Your task to perform on an android device: turn pop-ups on in chrome Image 0: 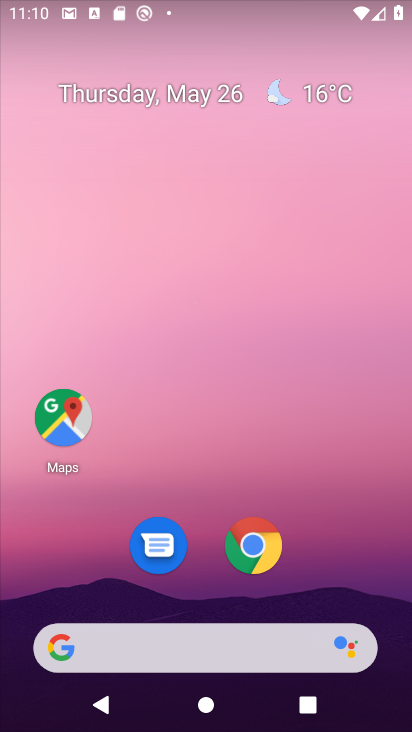
Step 0: press home button
Your task to perform on an android device: turn pop-ups on in chrome Image 1: 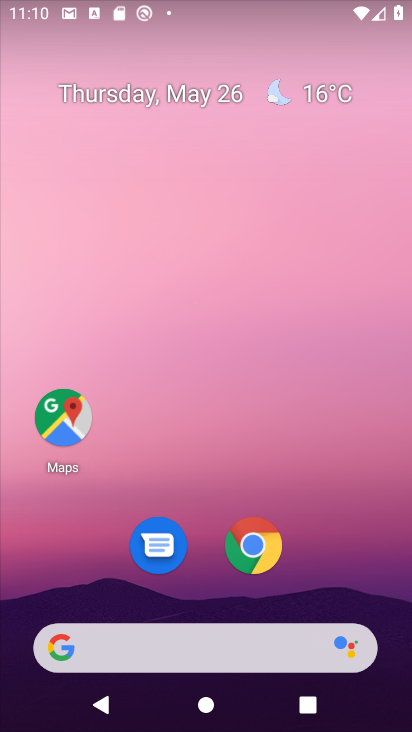
Step 1: click (257, 534)
Your task to perform on an android device: turn pop-ups on in chrome Image 2: 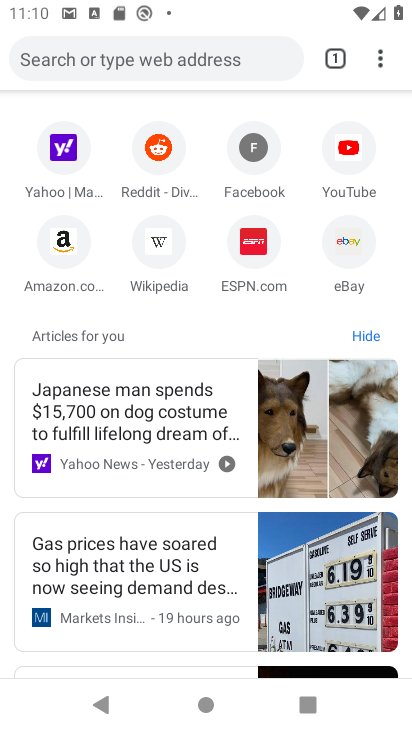
Step 2: drag from (378, 53) to (179, 496)
Your task to perform on an android device: turn pop-ups on in chrome Image 3: 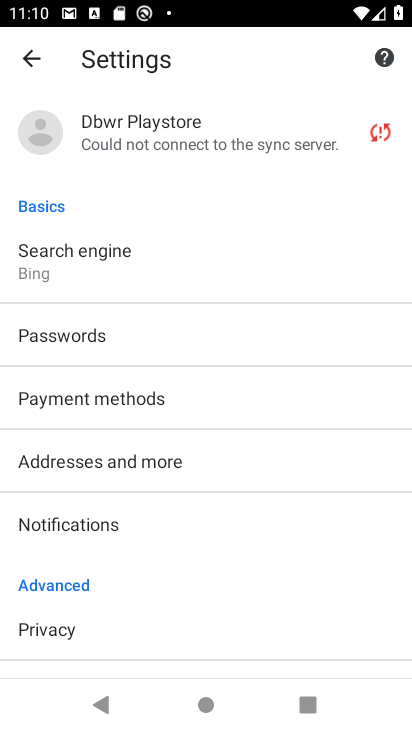
Step 3: drag from (226, 619) to (166, 236)
Your task to perform on an android device: turn pop-ups on in chrome Image 4: 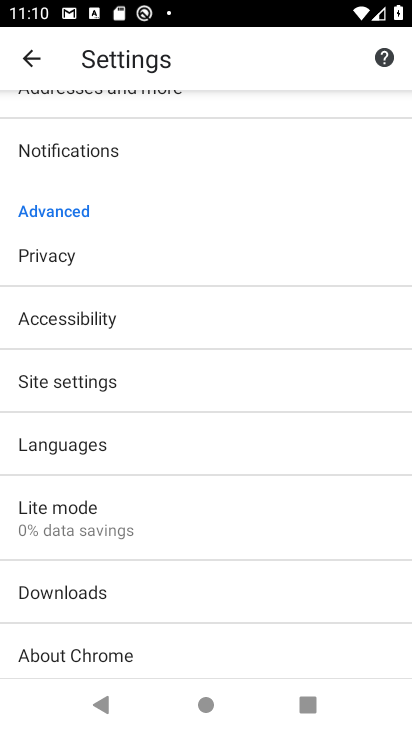
Step 4: click (63, 391)
Your task to perform on an android device: turn pop-ups on in chrome Image 5: 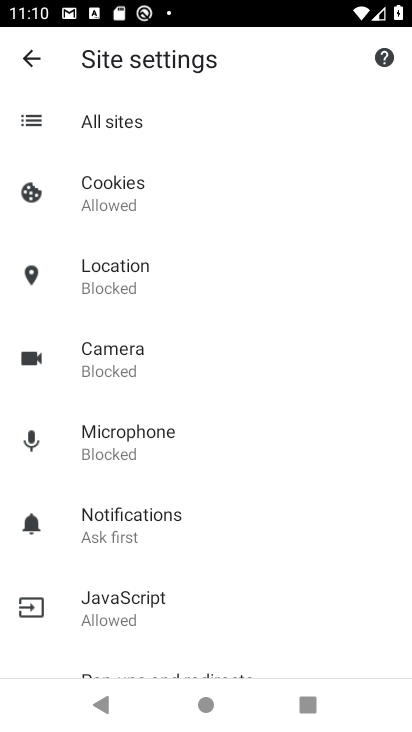
Step 5: drag from (291, 555) to (256, 353)
Your task to perform on an android device: turn pop-ups on in chrome Image 6: 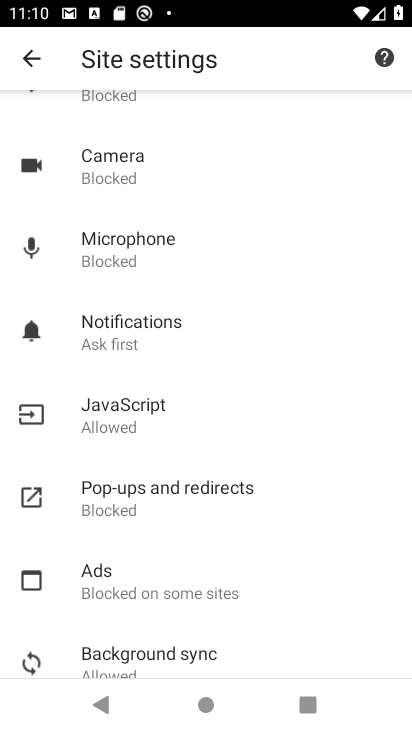
Step 6: click (134, 503)
Your task to perform on an android device: turn pop-ups on in chrome Image 7: 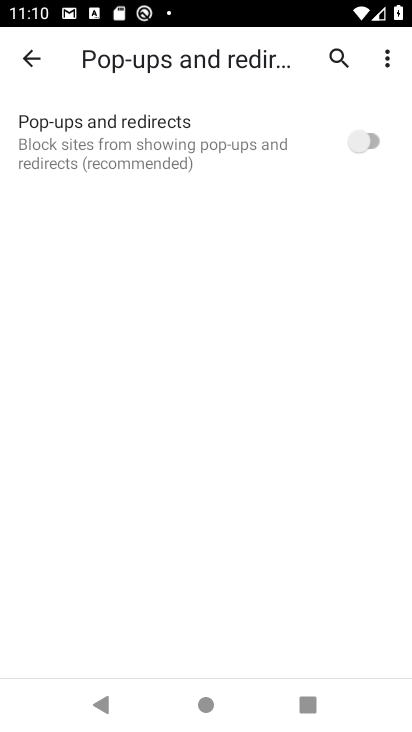
Step 7: click (369, 136)
Your task to perform on an android device: turn pop-ups on in chrome Image 8: 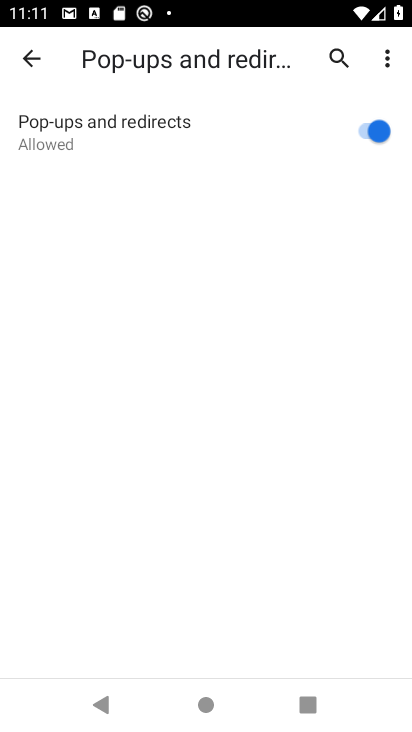
Step 8: task complete